Your task to perform on an android device: Clear the cart on target. Search for usb-b on target, select the first entry, and add it to the cart. Image 0: 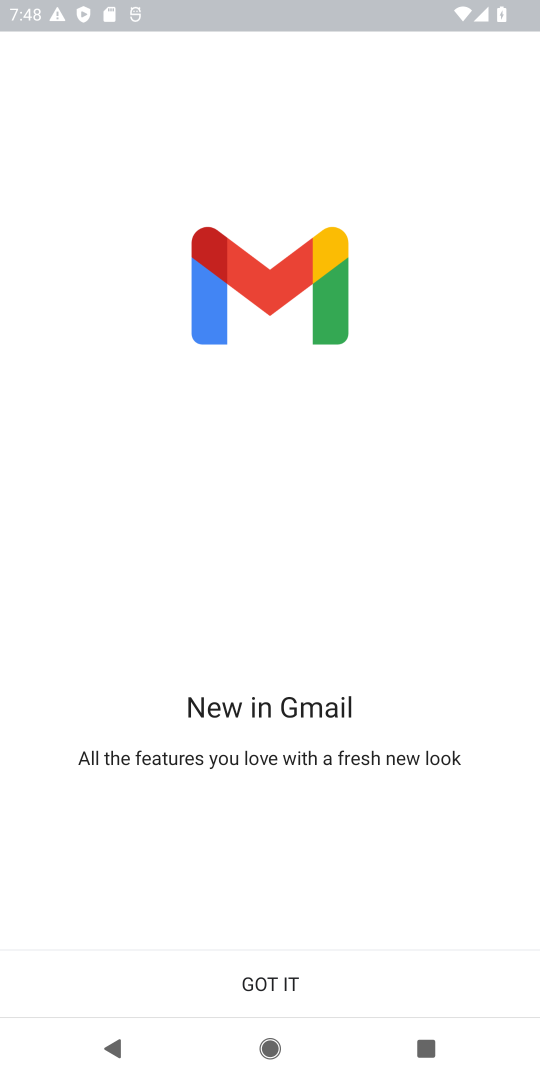
Step 0: press home button
Your task to perform on an android device: Clear the cart on target. Search for usb-b on target, select the first entry, and add it to the cart. Image 1: 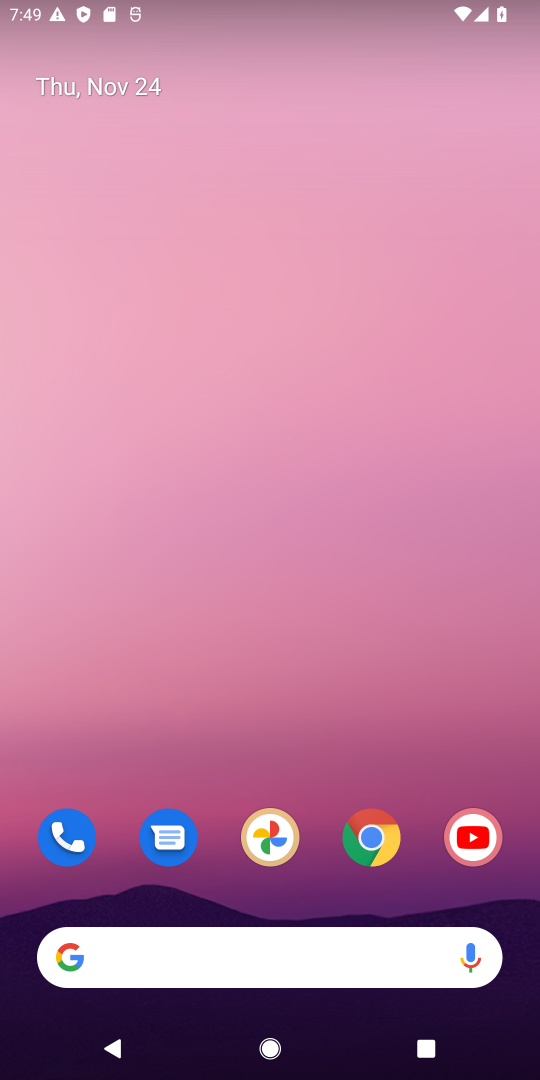
Step 1: click (360, 851)
Your task to perform on an android device: Clear the cart on target. Search for usb-b on target, select the first entry, and add it to the cart. Image 2: 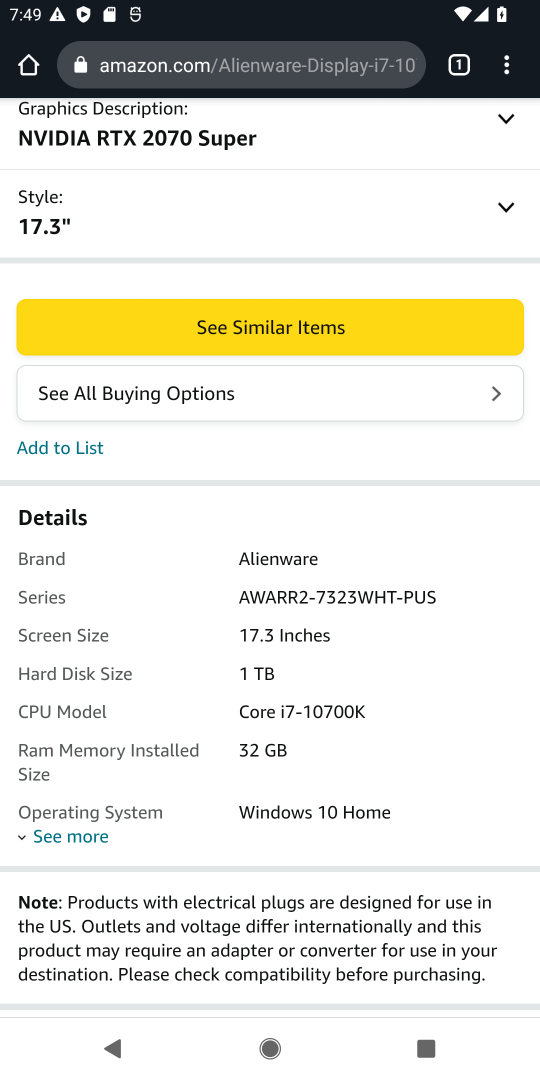
Step 2: click (332, 68)
Your task to perform on an android device: Clear the cart on target. Search for usb-b on target, select the first entry, and add it to the cart. Image 3: 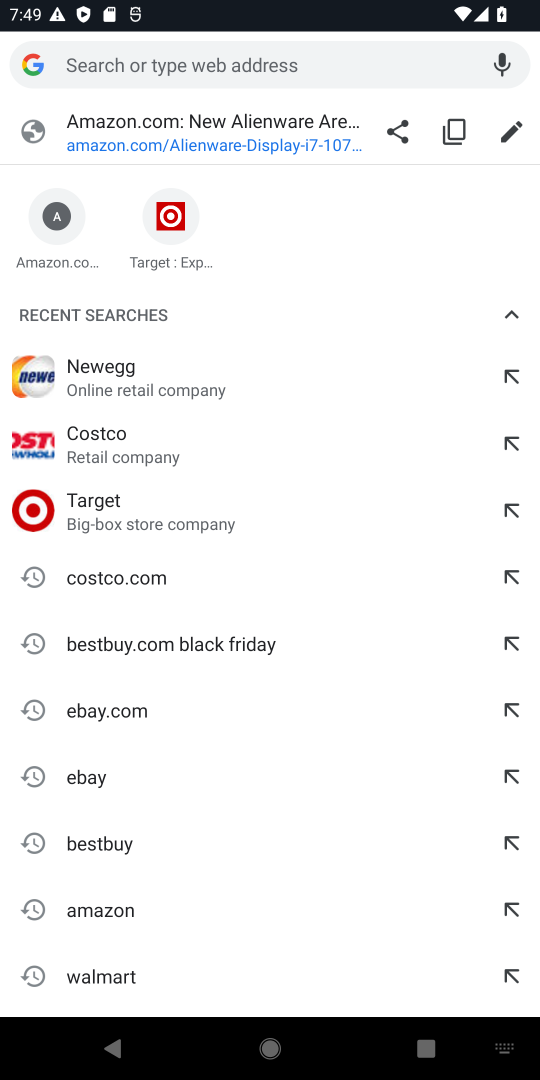
Step 3: type "target"
Your task to perform on an android device: Clear the cart on target. Search for usb-b on target, select the first entry, and add it to the cart. Image 4: 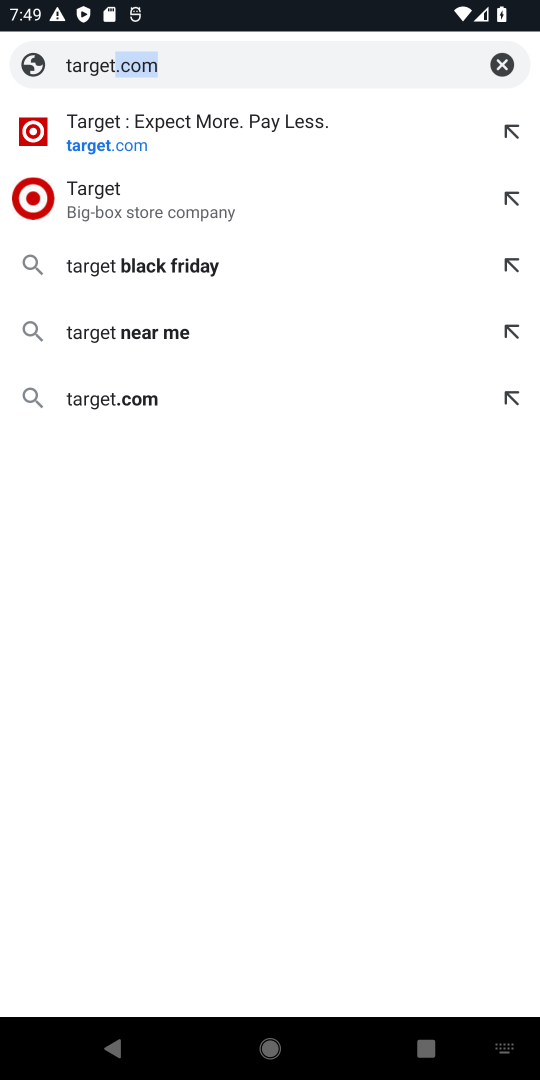
Step 4: click (162, 138)
Your task to perform on an android device: Clear the cart on target. Search for usb-b on target, select the first entry, and add it to the cart. Image 5: 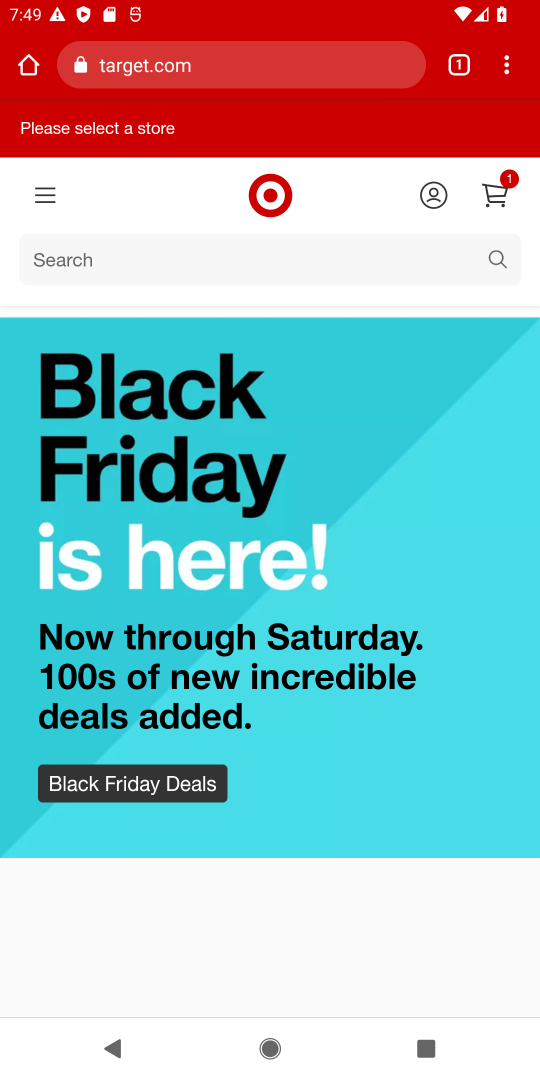
Step 5: click (489, 195)
Your task to perform on an android device: Clear the cart on target. Search for usb-b on target, select the first entry, and add it to the cart. Image 6: 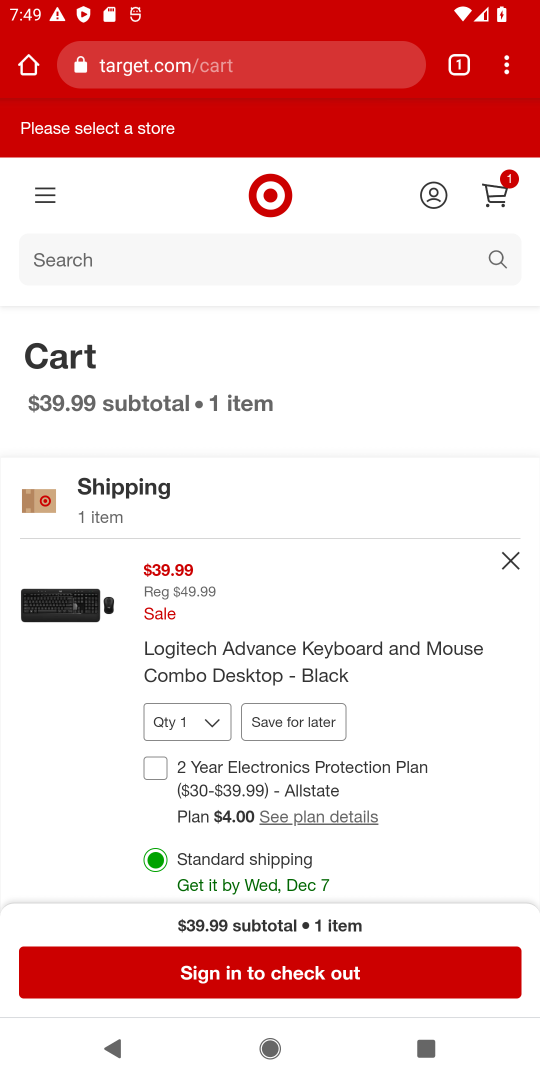
Step 6: click (506, 556)
Your task to perform on an android device: Clear the cart on target. Search for usb-b on target, select the first entry, and add it to the cart. Image 7: 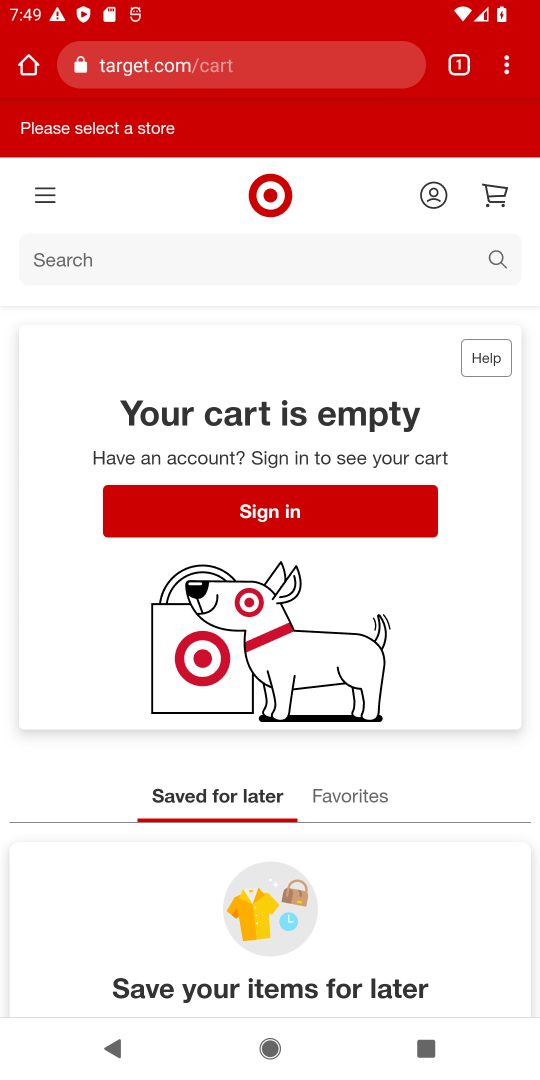
Step 7: click (274, 251)
Your task to perform on an android device: Clear the cart on target. Search for usb-b on target, select the first entry, and add it to the cart. Image 8: 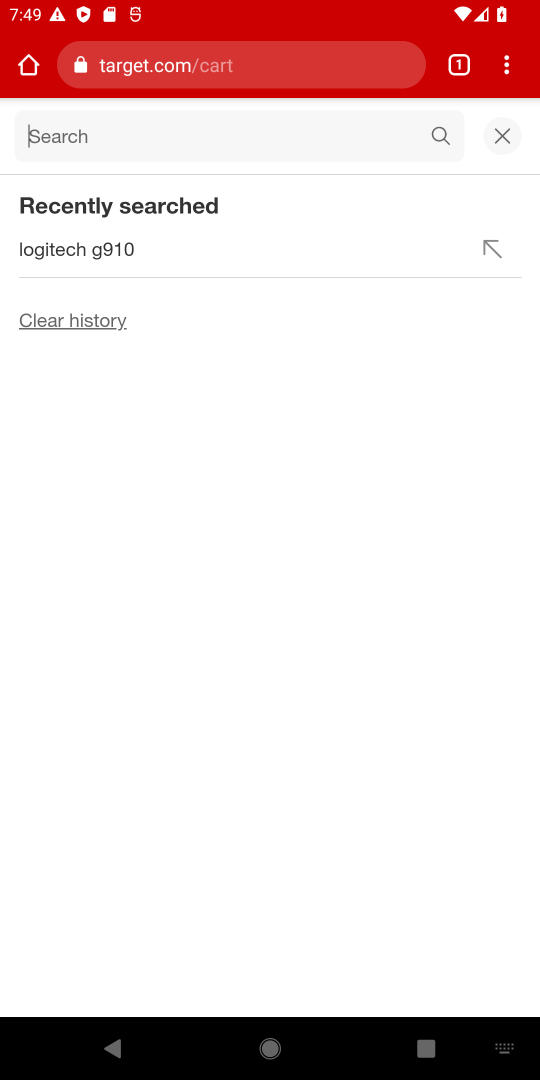
Step 8: type "usb-b"
Your task to perform on an android device: Clear the cart on target. Search for usb-b on target, select the first entry, and add it to the cart. Image 9: 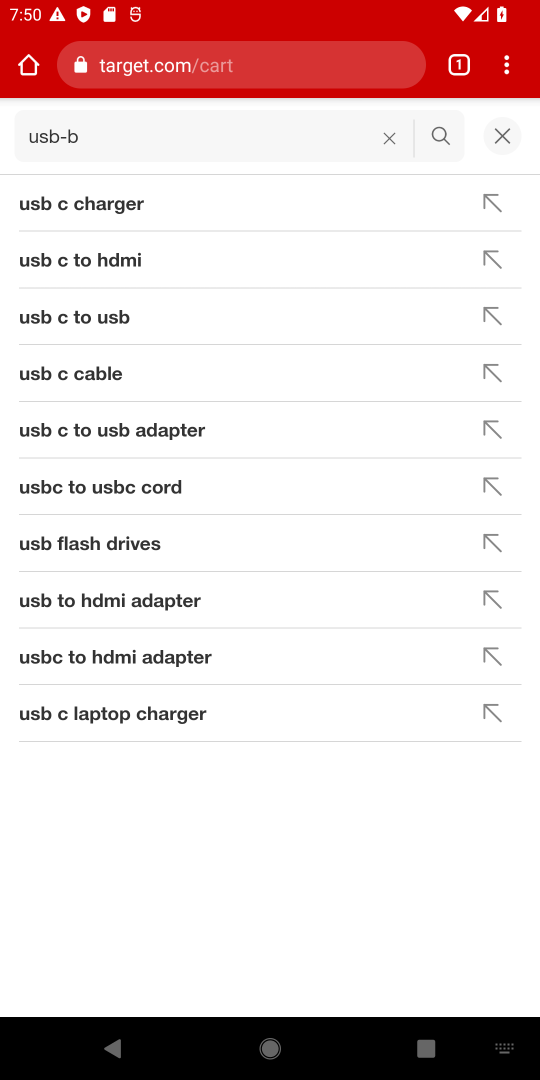
Step 9: click (433, 135)
Your task to perform on an android device: Clear the cart on target. Search for usb-b on target, select the first entry, and add it to the cart. Image 10: 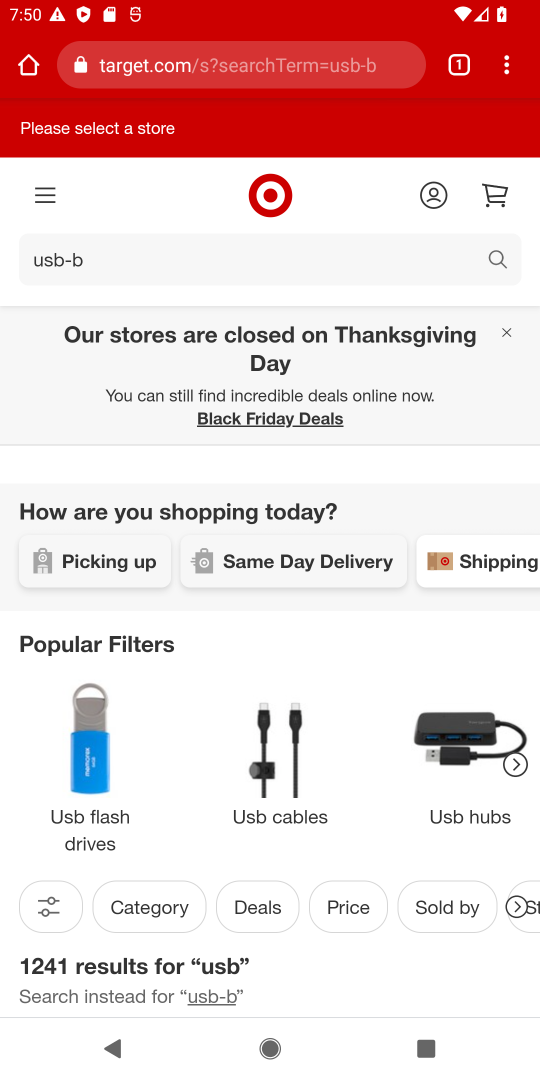
Step 10: drag from (355, 637) to (337, 298)
Your task to perform on an android device: Clear the cart on target. Search for usb-b on target, select the first entry, and add it to the cart. Image 11: 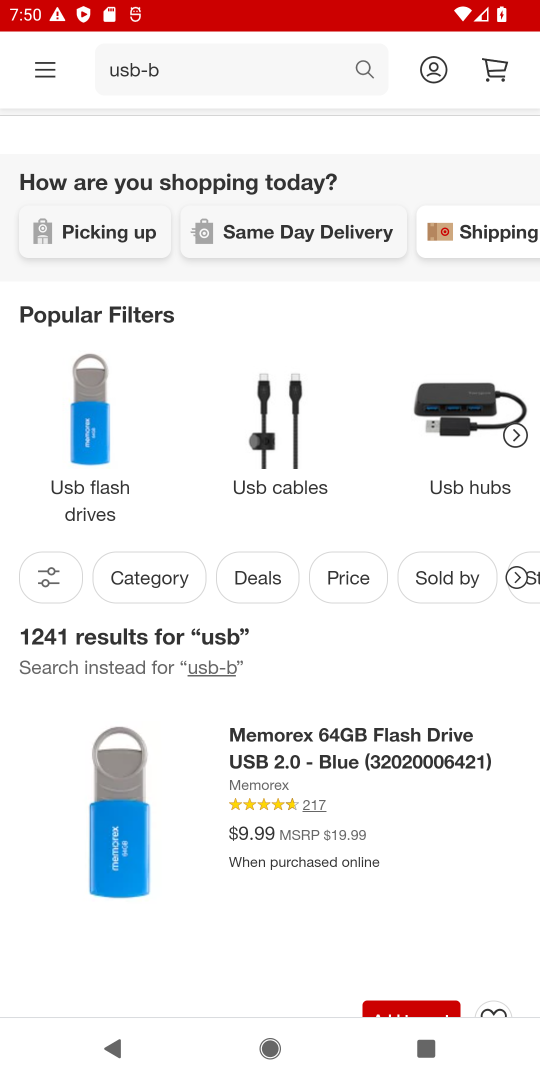
Step 11: drag from (340, 805) to (318, 548)
Your task to perform on an android device: Clear the cart on target. Search for usb-b on target, select the first entry, and add it to the cart. Image 12: 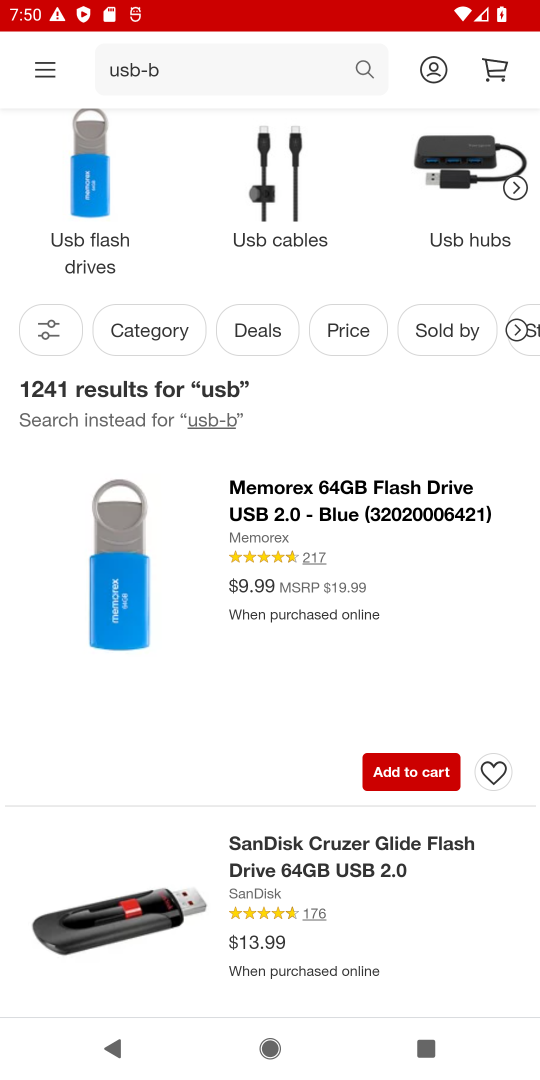
Step 12: drag from (307, 889) to (287, 699)
Your task to perform on an android device: Clear the cart on target. Search for usb-b on target, select the first entry, and add it to the cart. Image 13: 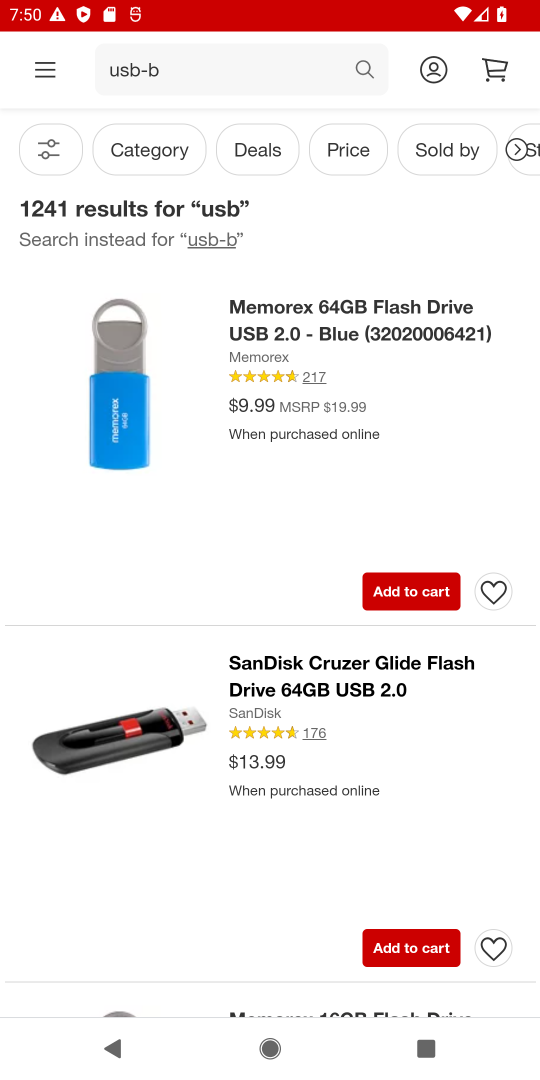
Step 13: click (315, 346)
Your task to perform on an android device: Clear the cart on target. Search for usb-b on target, select the first entry, and add it to the cart. Image 14: 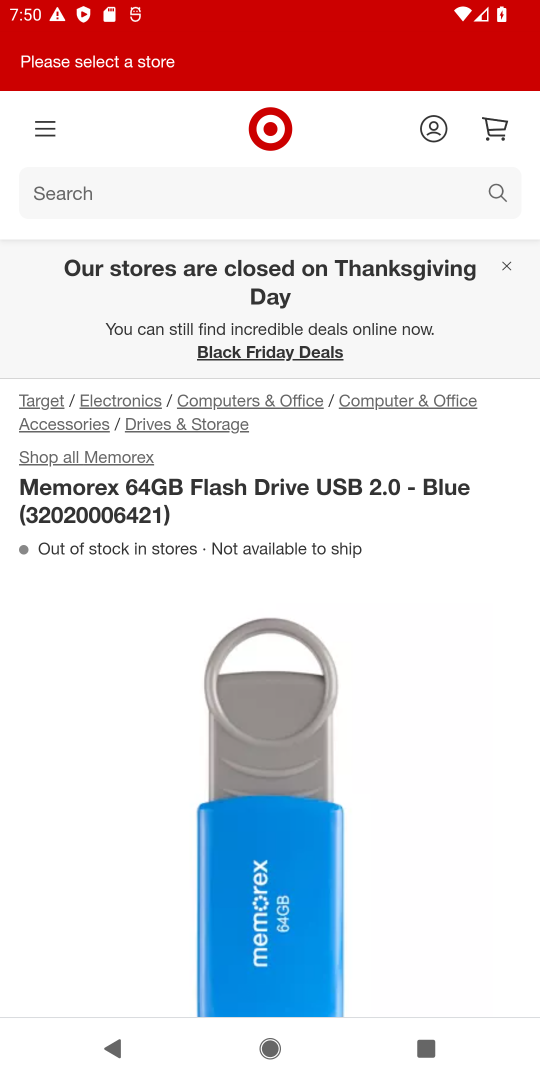
Step 14: drag from (324, 834) to (297, 478)
Your task to perform on an android device: Clear the cart on target. Search for usb-b on target, select the first entry, and add it to the cart. Image 15: 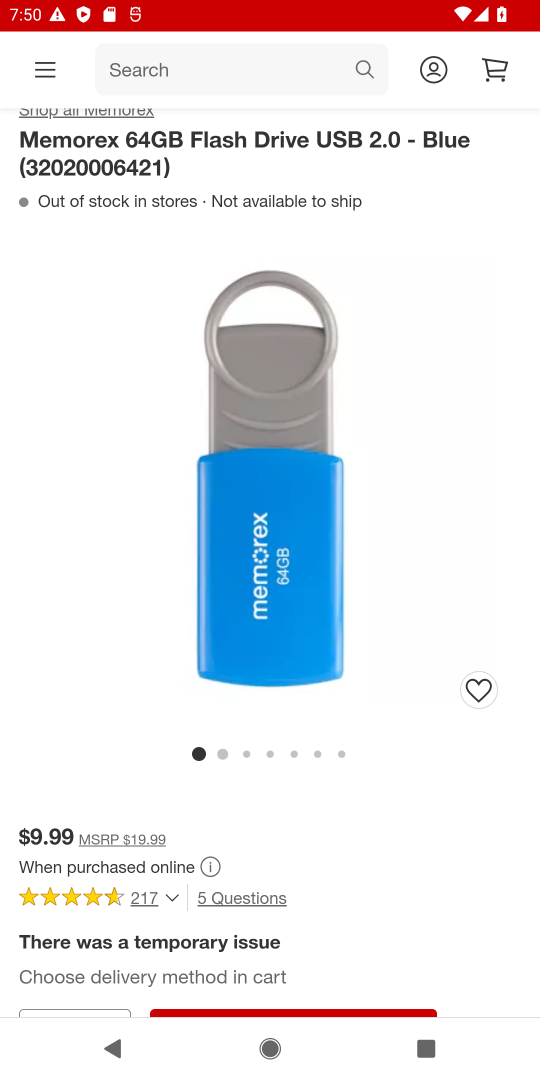
Step 15: drag from (269, 896) to (239, 531)
Your task to perform on an android device: Clear the cart on target. Search for usb-b on target, select the first entry, and add it to the cart. Image 16: 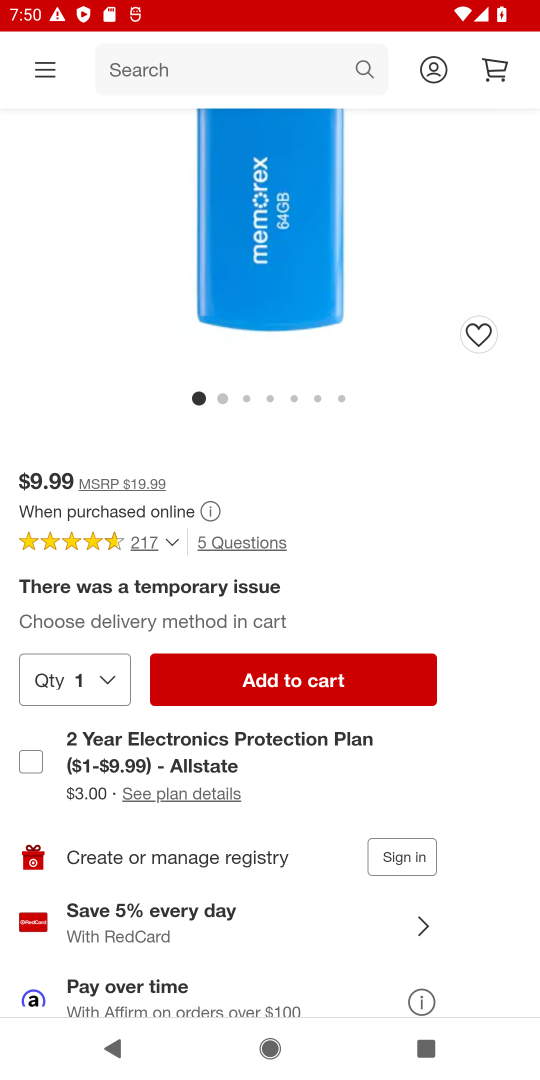
Step 16: click (284, 683)
Your task to perform on an android device: Clear the cart on target. Search for usb-b on target, select the first entry, and add it to the cart. Image 17: 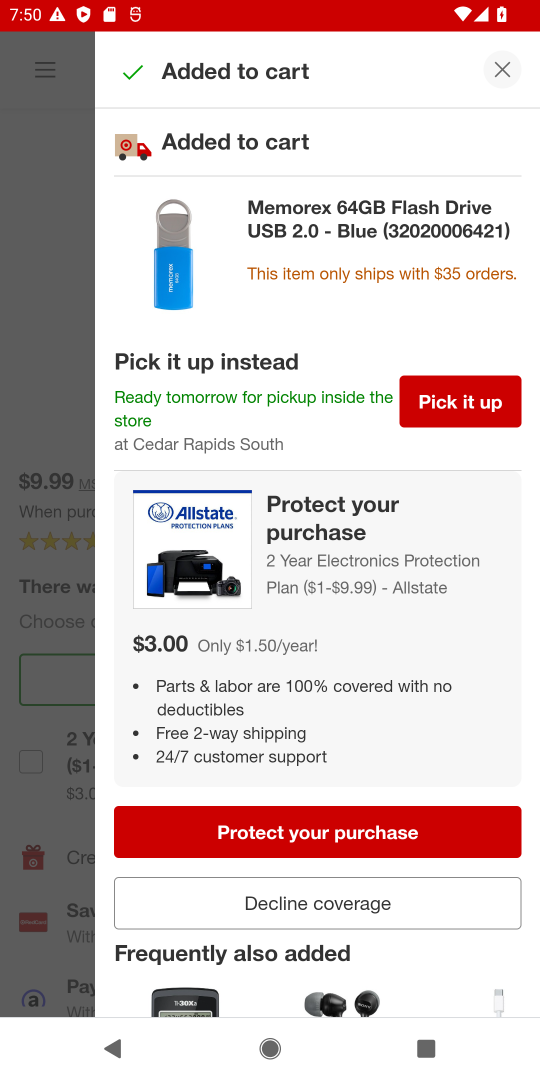
Step 17: click (380, 909)
Your task to perform on an android device: Clear the cart on target. Search for usb-b on target, select the first entry, and add it to the cart. Image 18: 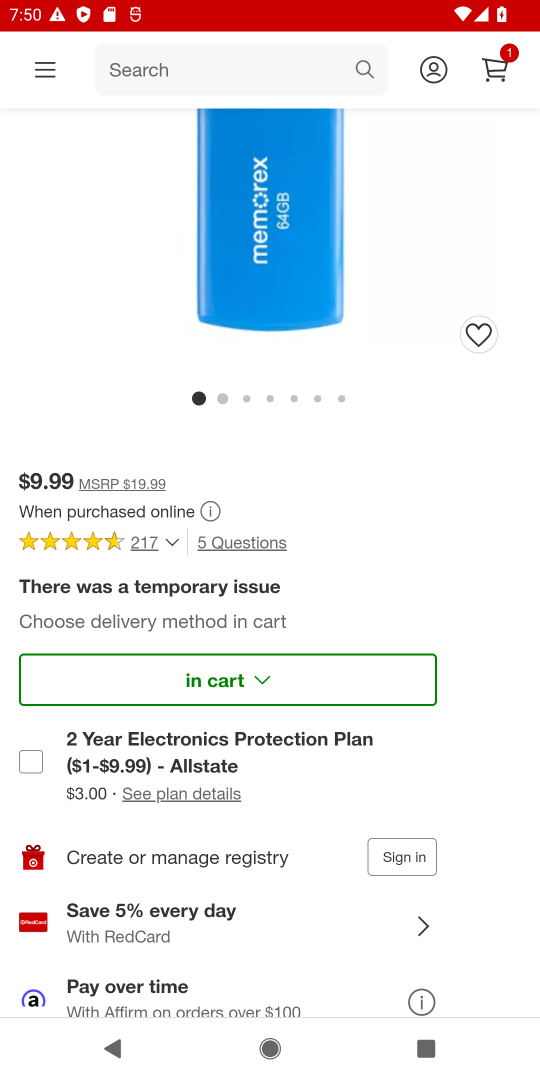
Step 18: task complete